Your task to perform on an android device: turn on location history Image 0: 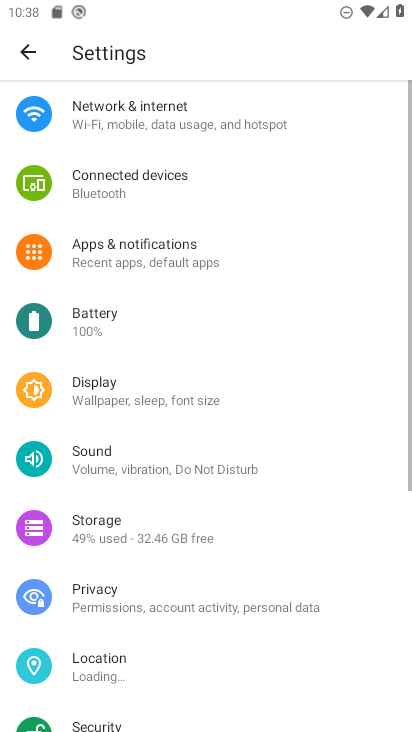
Step 0: press home button
Your task to perform on an android device: turn on location history Image 1: 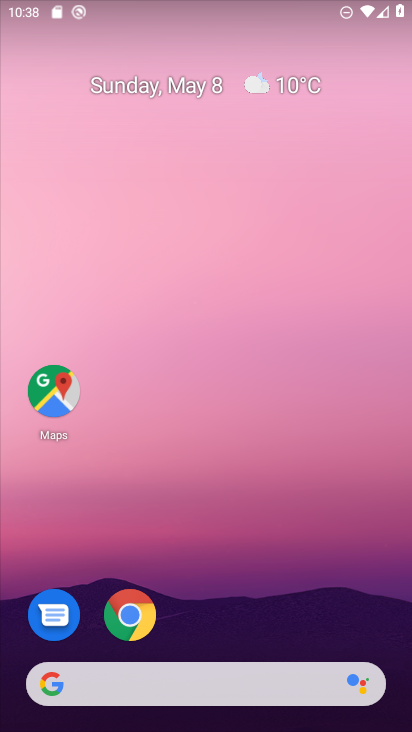
Step 1: drag from (315, 585) to (294, 140)
Your task to perform on an android device: turn on location history Image 2: 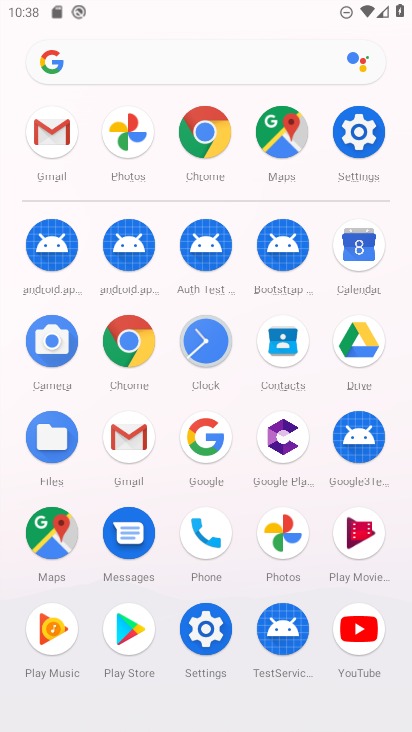
Step 2: click (364, 141)
Your task to perform on an android device: turn on location history Image 3: 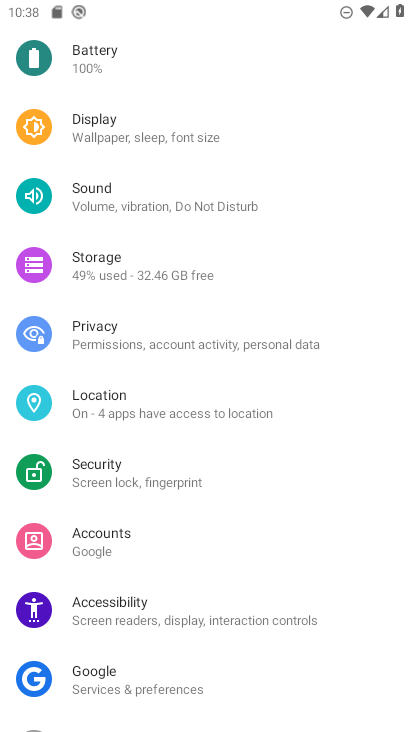
Step 3: drag from (204, 606) to (244, 293)
Your task to perform on an android device: turn on location history Image 4: 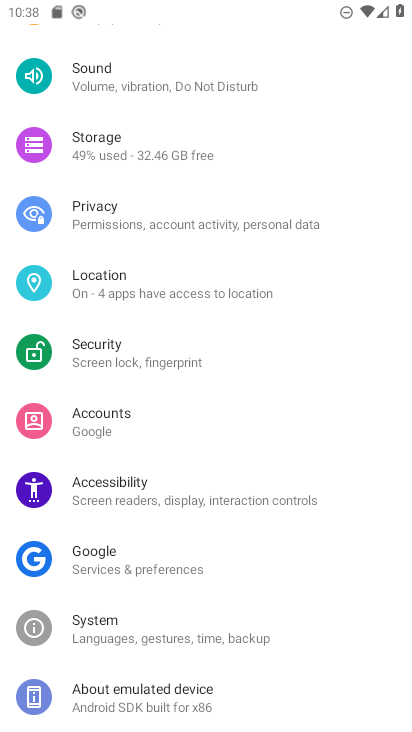
Step 4: click (128, 288)
Your task to perform on an android device: turn on location history Image 5: 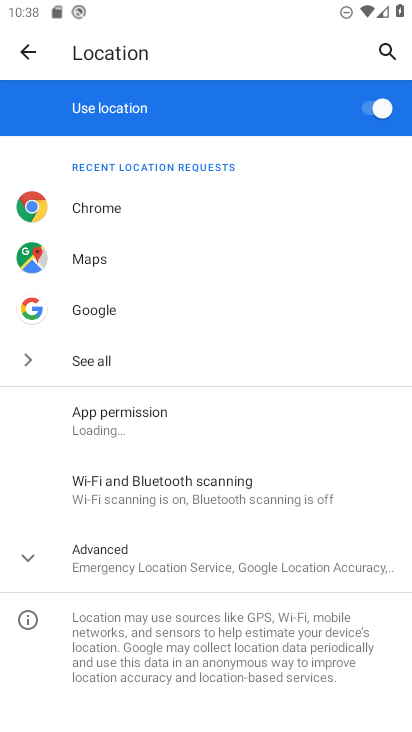
Step 5: click (204, 556)
Your task to perform on an android device: turn on location history Image 6: 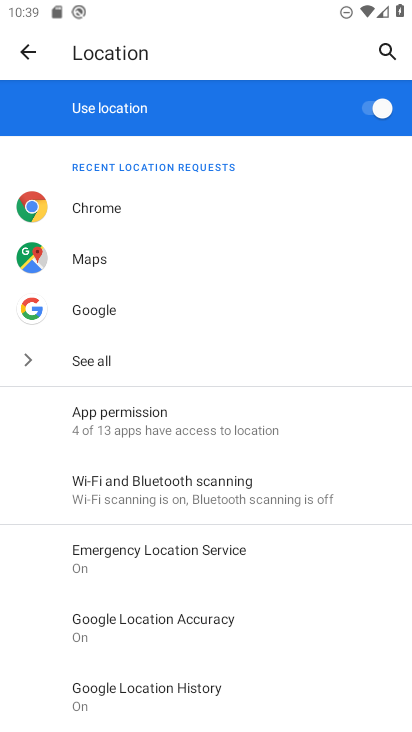
Step 6: drag from (230, 611) to (280, 240)
Your task to perform on an android device: turn on location history Image 7: 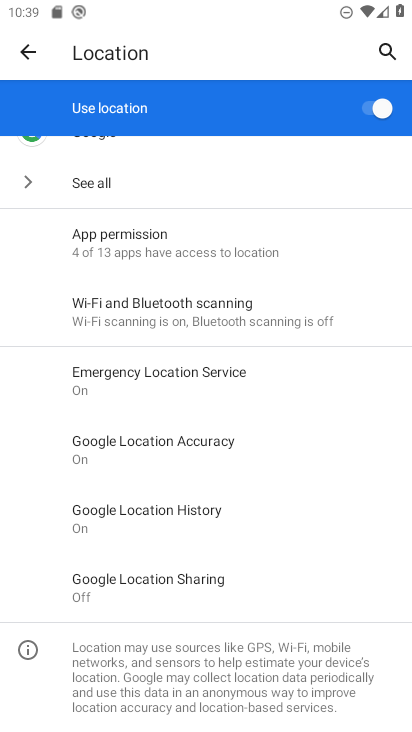
Step 7: click (183, 511)
Your task to perform on an android device: turn on location history Image 8: 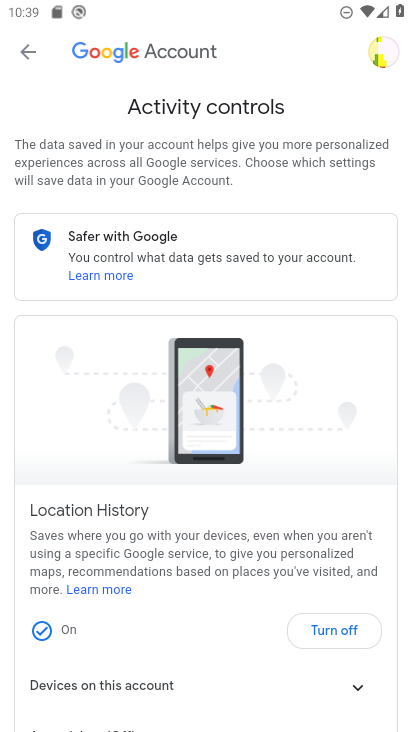
Step 8: task complete